Your task to perform on an android device: What's on my calendar tomorrow? Image 0: 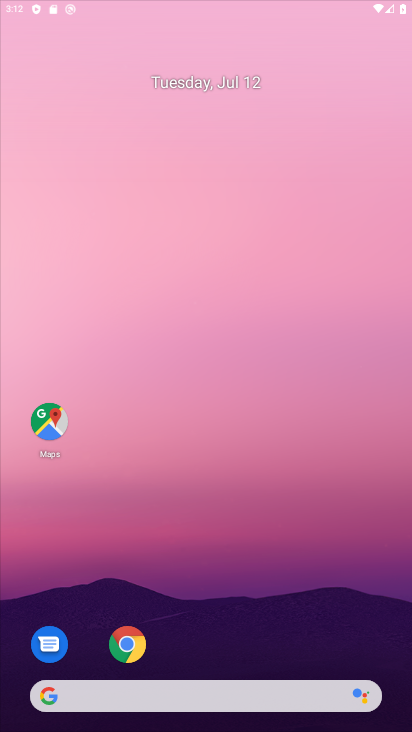
Step 0: drag from (314, 644) to (162, 116)
Your task to perform on an android device: What's on my calendar tomorrow? Image 1: 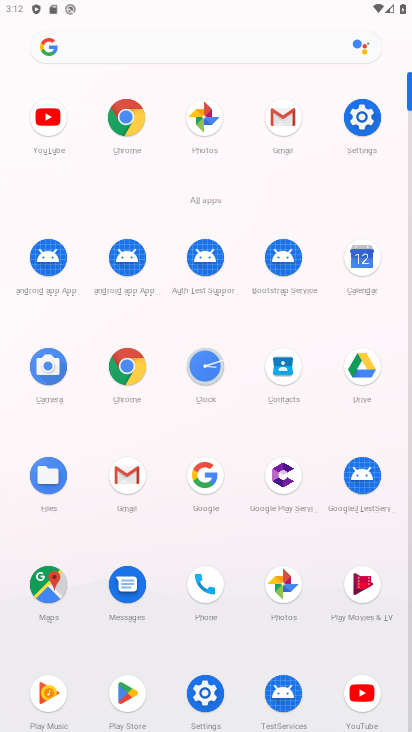
Step 1: click (370, 118)
Your task to perform on an android device: What's on my calendar tomorrow? Image 2: 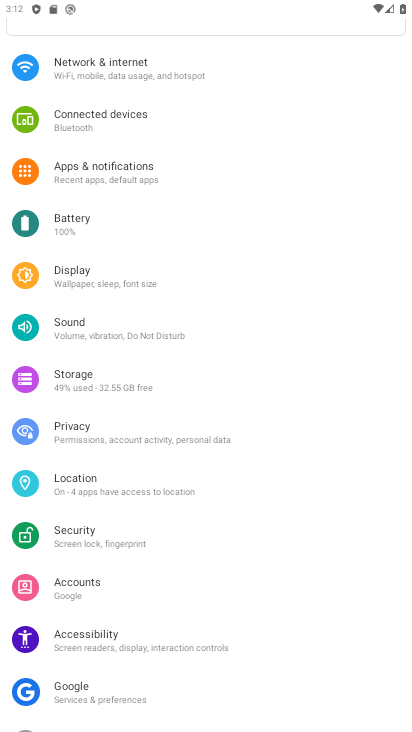
Step 2: click (128, 341)
Your task to perform on an android device: What's on my calendar tomorrow? Image 3: 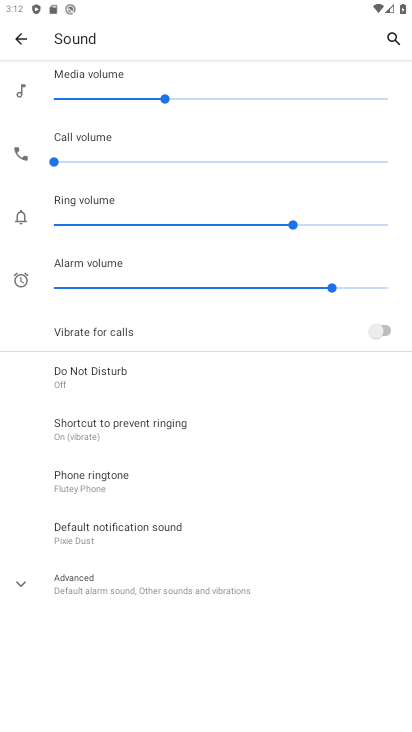
Step 3: press home button
Your task to perform on an android device: What's on my calendar tomorrow? Image 4: 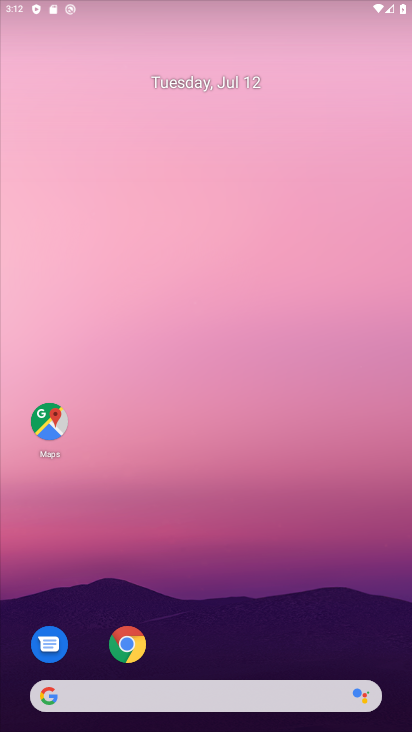
Step 4: drag from (203, 590) to (183, 59)
Your task to perform on an android device: What's on my calendar tomorrow? Image 5: 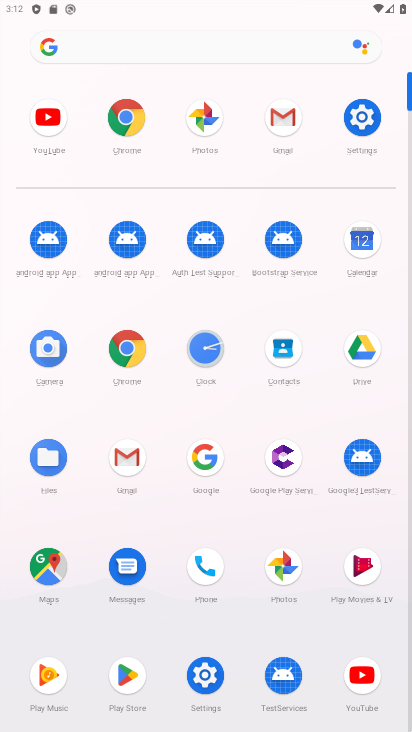
Step 5: click (366, 245)
Your task to perform on an android device: What's on my calendar tomorrow? Image 6: 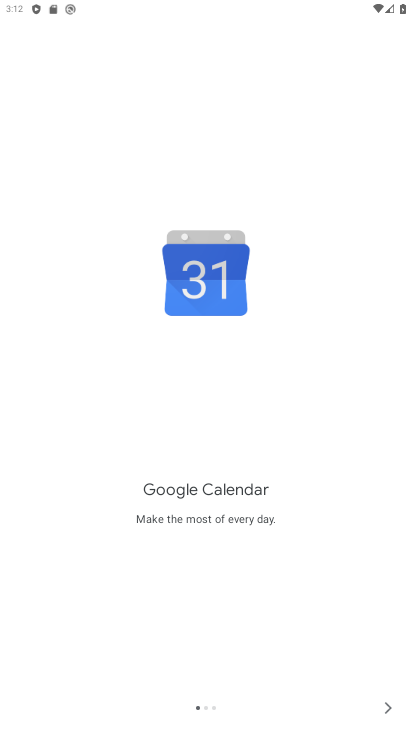
Step 6: click (383, 694)
Your task to perform on an android device: What's on my calendar tomorrow? Image 7: 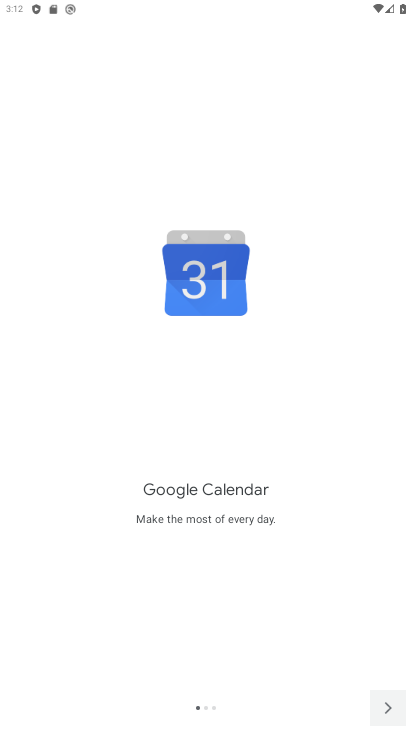
Step 7: click (385, 702)
Your task to perform on an android device: What's on my calendar tomorrow? Image 8: 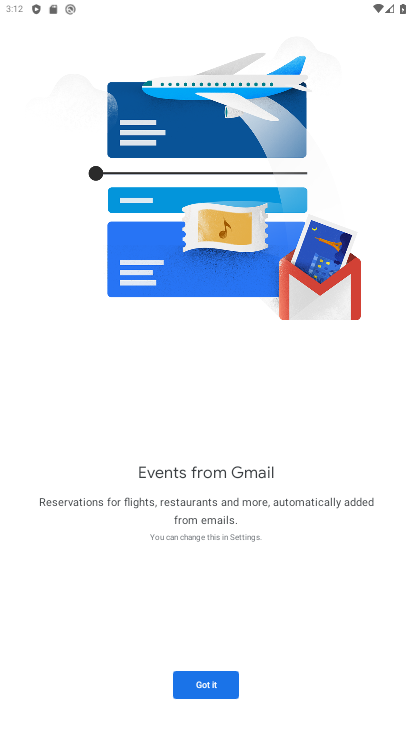
Step 8: click (385, 700)
Your task to perform on an android device: What's on my calendar tomorrow? Image 9: 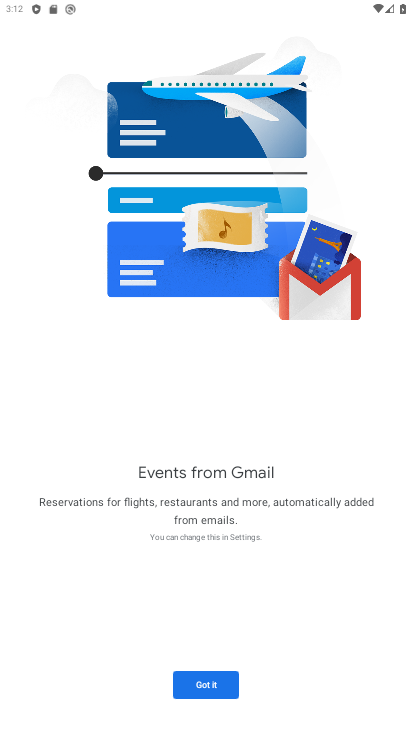
Step 9: click (213, 681)
Your task to perform on an android device: What's on my calendar tomorrow? Image 10: 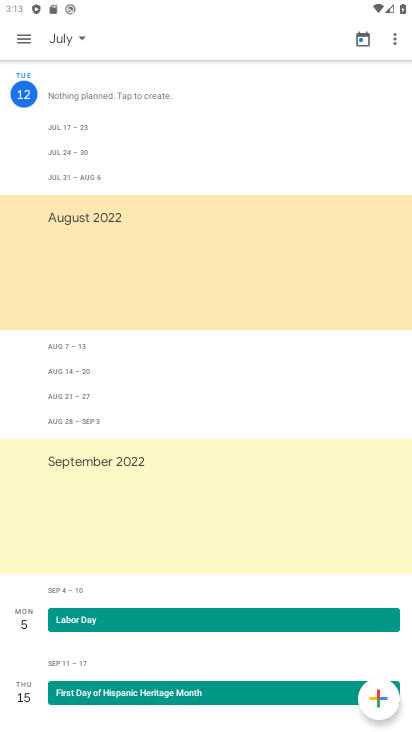
Step 10: click (62, 44)
Your task to perform on an android device: What's on my calendar tomorrow? Image 11: 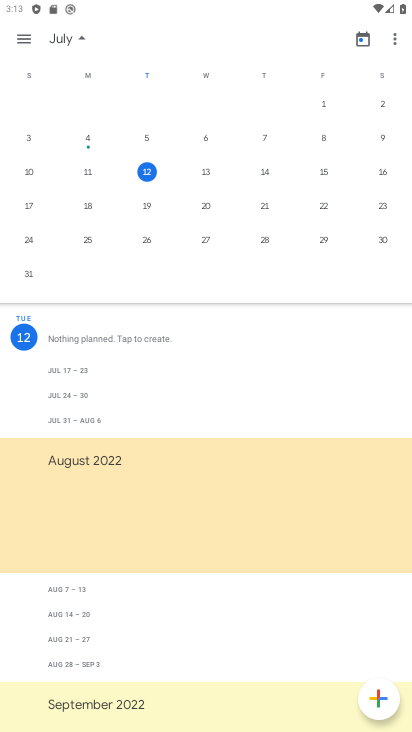
Step 11: click (211, 176)
Your task to perform on an android device: What's on my calendar tomorrow? Image 12: 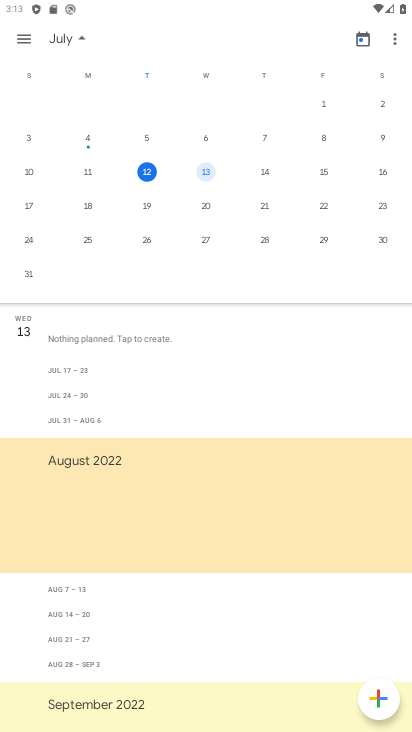
Step 12: click (200, 169)
Your task to perform on an android device: What's on my calendar tomorrow? Image 13: 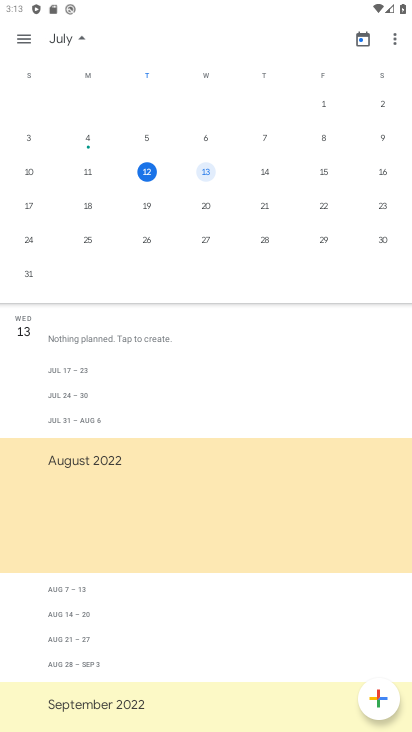
Step 13: task complete